Your task to perform on an android device: What is the news today? Image 0: 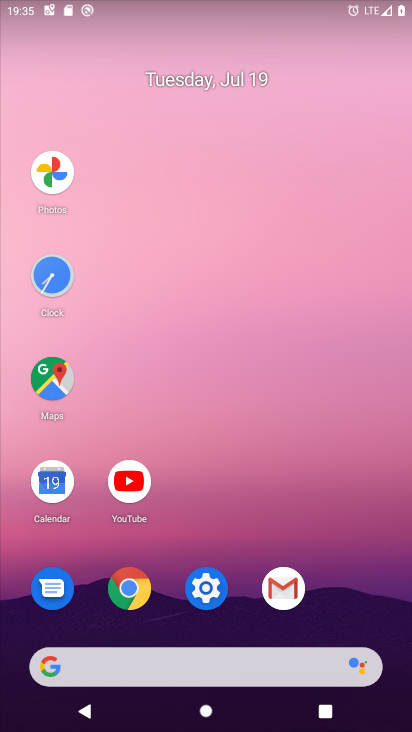
Step 0: drag from (10, 227) to (361, 224)
Your task to perform on an android device: What is the news today? Image 1: 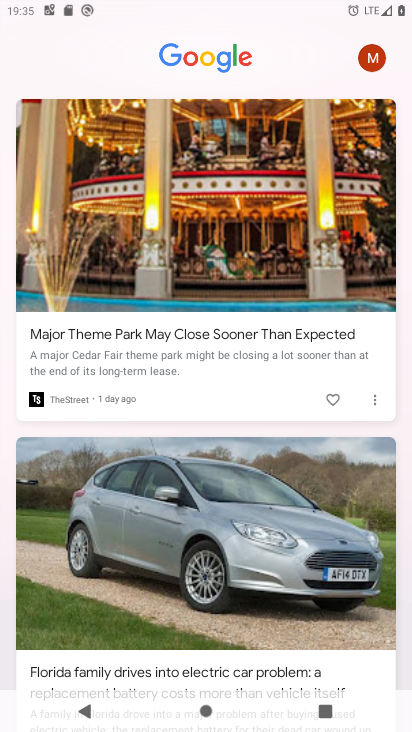
Step 1: task complete